Your task to perform on an android device: Open display settings Image 0: 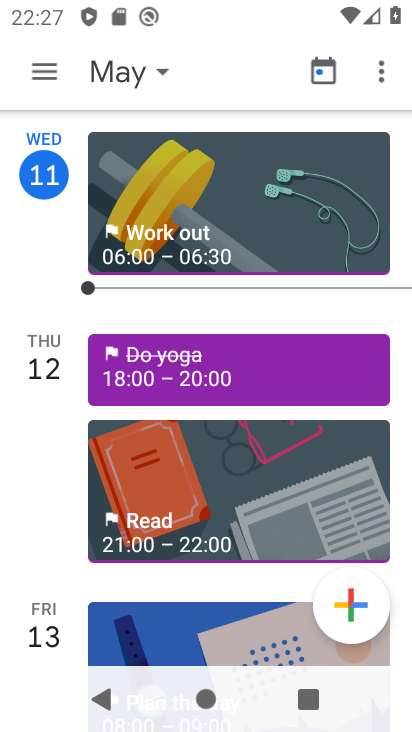
Step 0: press home button
Your task to perform on an android device: Open display settings Image 1: 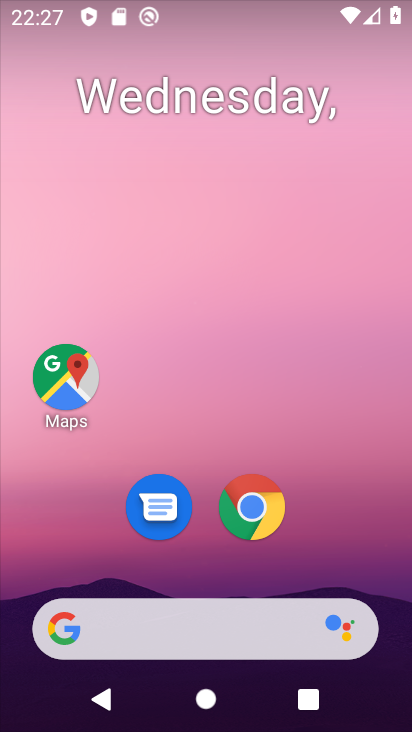
Step 1: drag from (329, 549) to (321, 190)
Your task to perform on an android device: Open display settings Image 2: 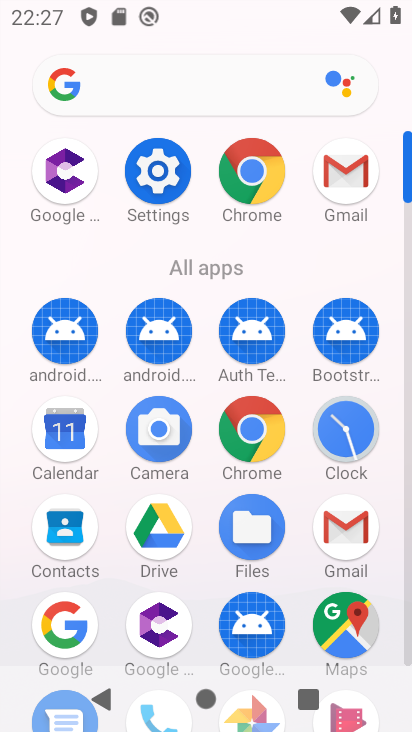
Step 2: click (144, 186)
Your task to perform on an android device: Open display settings Image 3: 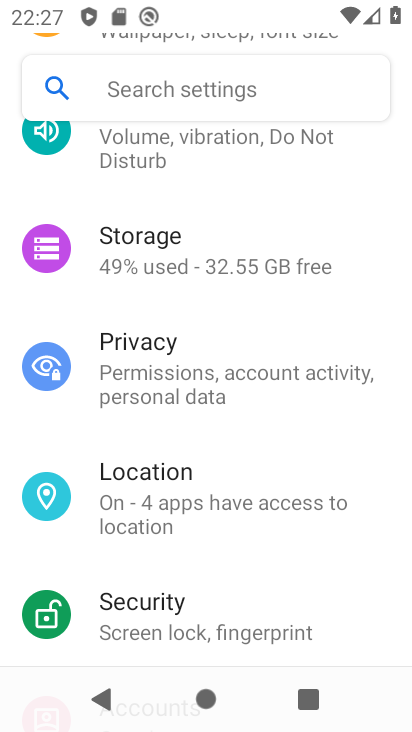
Step 3: drag from (142, 223) to (192, 549)
Your task to perform on an android device: Open display settings Image 4: 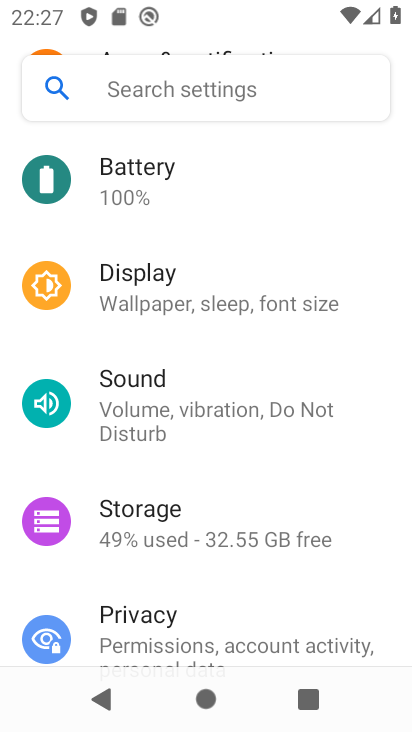
Step 4: click (129, 285)
Your task to perform on an android device: Open display settings Image 5: 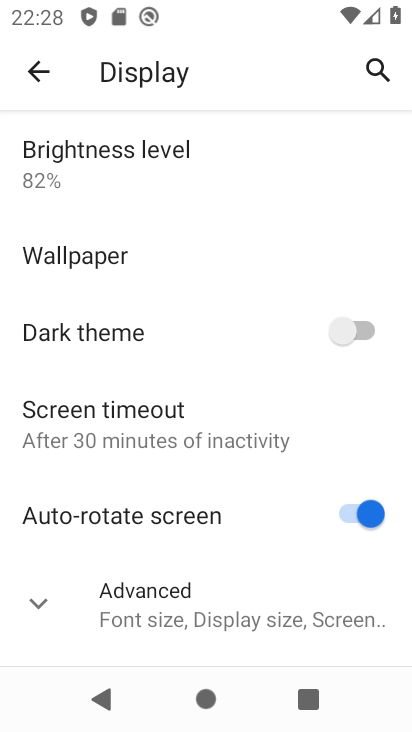
Step 5: task complete